Your task to perform on an android device: choose inbox layout in the gmail app Image 0: 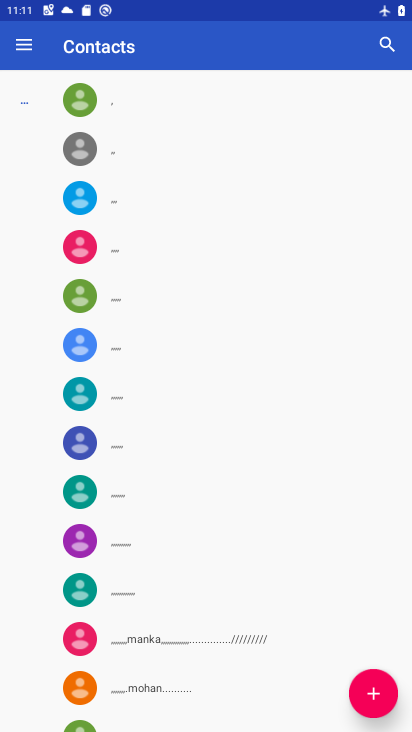
Step 0: press home button
Your task to perform on an android device: choose inbox layout in the gmail app Image 1: 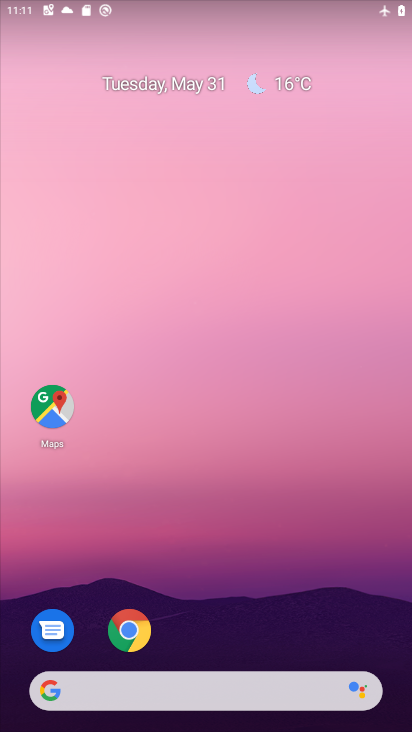
Step 1: drag from (257, 601) to (266, 121)
Your task to perform on an android device: choose inbox layout in the gmail app Image 2: 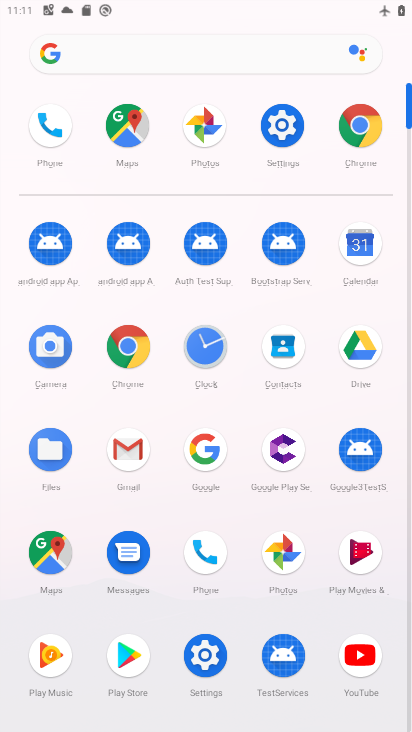
Step 2: click (138, 451)
Your task to perform on an android device: choose inbox layout in the gmail app Image 3: 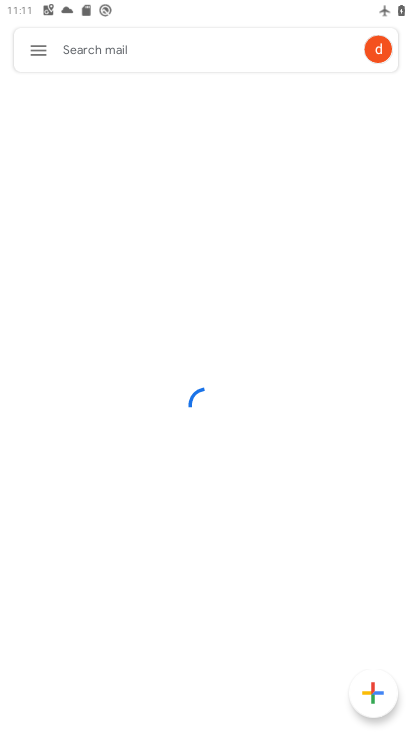
Step 3: click (41, 45)
Your task to perform on an android device: choose inbox layout in the gmail app Image 4: 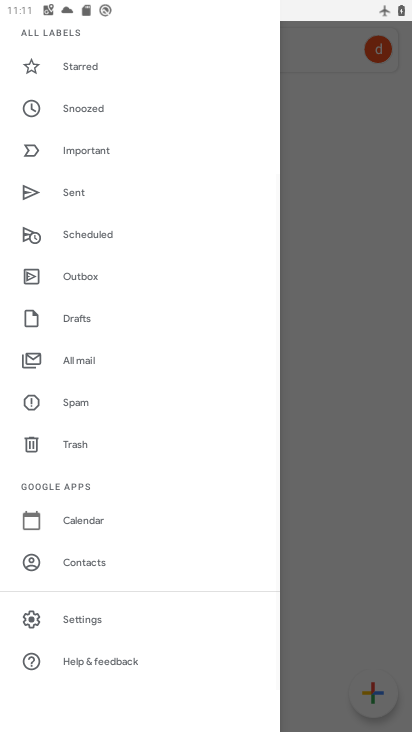
Step 4: click (97, 624)
Your task to perform on an android device: choose inbox layout in the gmail app Image 5: 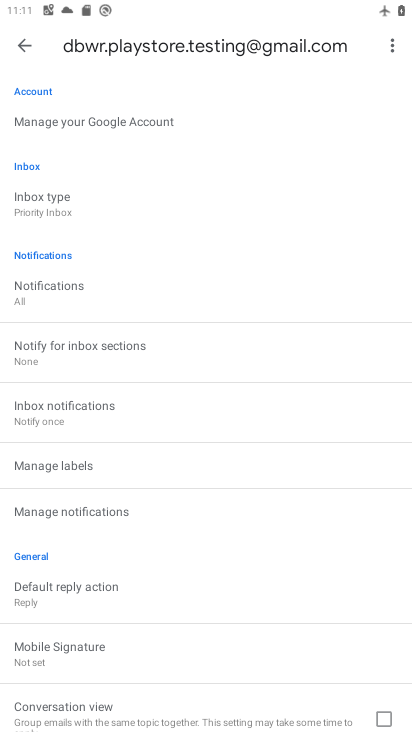
Step 5: drag from (215, 569) to (306, 97)
Your task to perform on an android device: choose inbox layout in the gmail app Image 6: 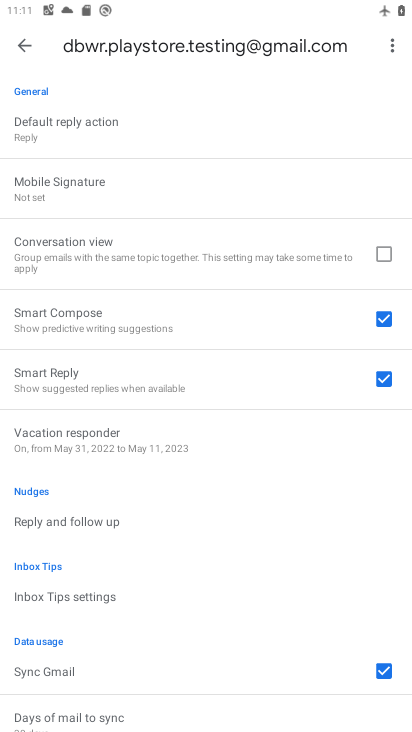
Step 6: drag from (156, 506) to (272, 95)
Your task to perform on an android device: choose inbox layout in the gmail app Image 7: 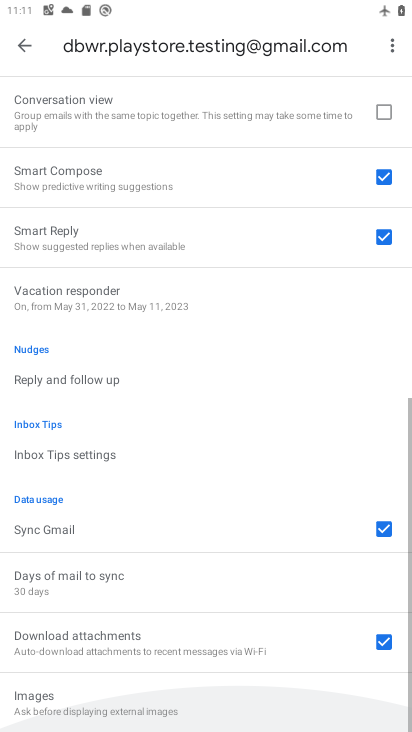
Step 7: click (280, 78)
Your task to perform on an android device: choose inbox layout in the gmail app Image 8: 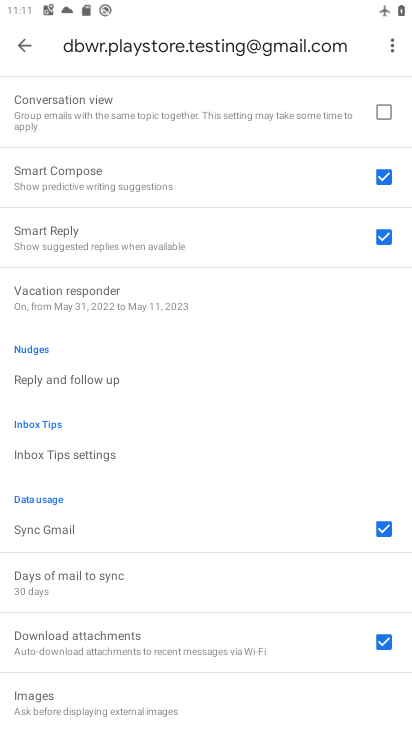
Step 8: drag from (239, 275) to (206, 688)
Your task to perform on an android device: choose inbox layout in the gmail app Image 9: 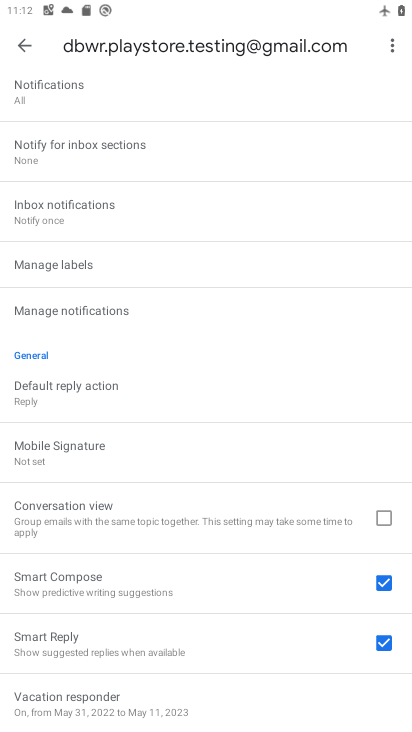
Step 9: drag from (230, 264) to (219, 704)
Your task to perform on an android device: choose inbox layout in the gmail app Image 10: 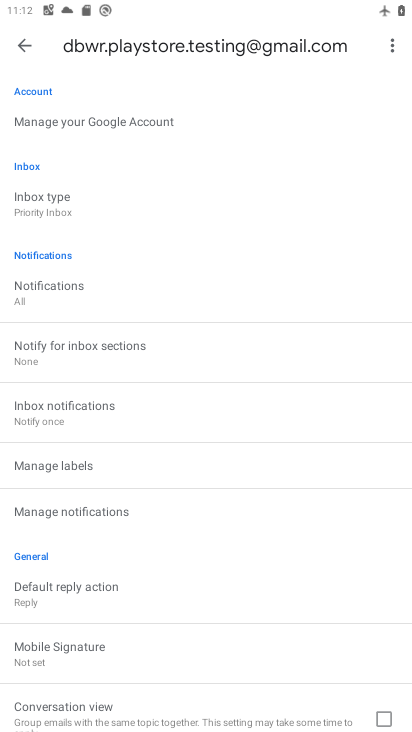
Step 10: click (44, 197)
Your task to perform on an android device: choose inbox layout in the gmail app Image 11: 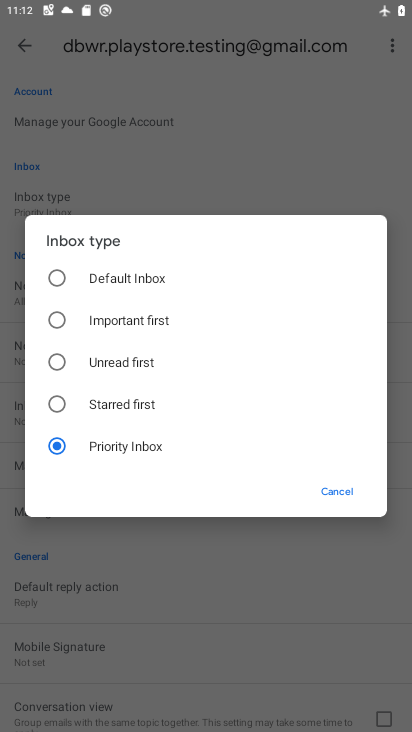
Step 11: task complete